Your task to perform on an android device: Open privacy settings Image 0: 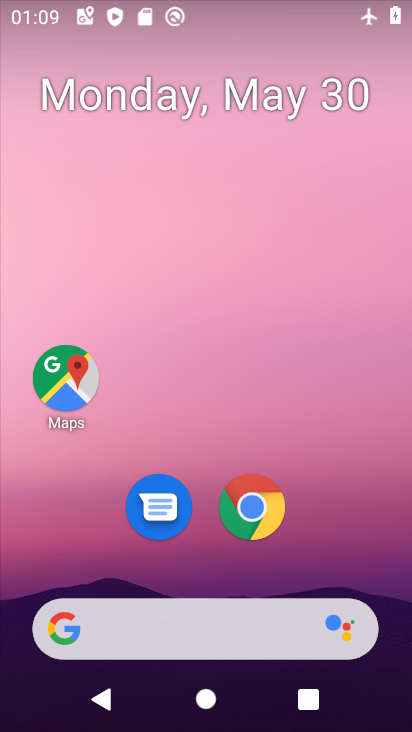
Step 0: drag from (291, 437) to (287, 108)
Your task to perform on an android device: Open privacy settings Image 1: 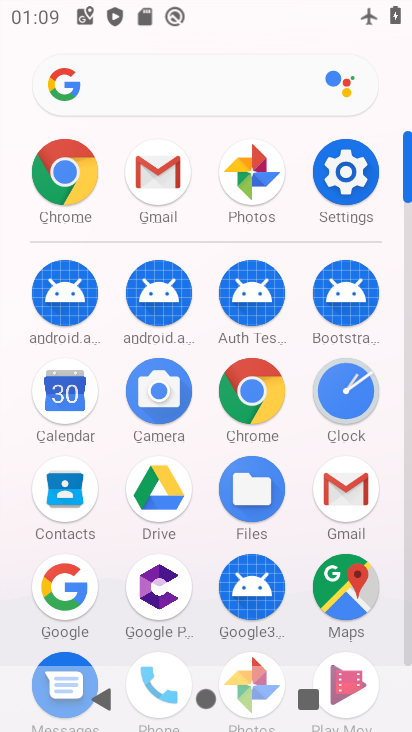
Step 1: click (334, 177)
Your task to perform on an android device: Open privacy settings Image 2: 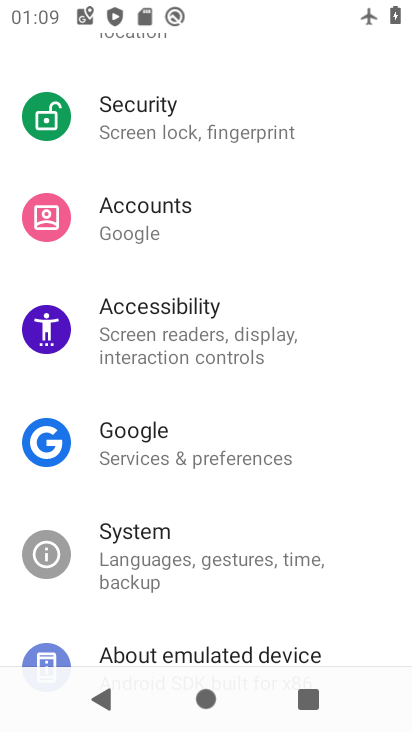
Step 2: drag from (227, 203) to (158, 591)
Your task to perform on an android device: Open privacy settings Image 3: 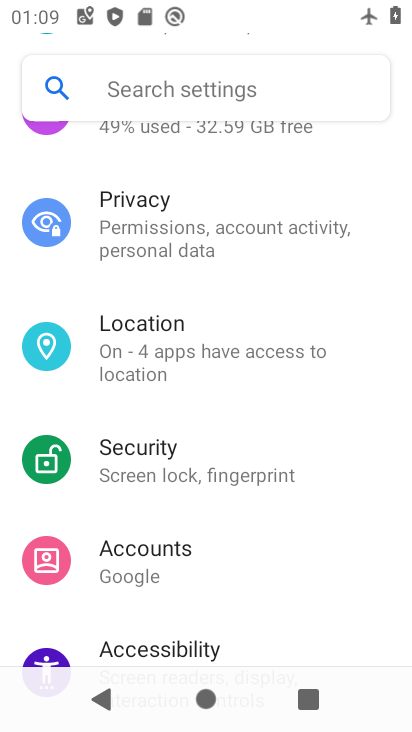
Step 3: click (172, 211)
Your task to perform on an android device: Open privacy settings Image 4: 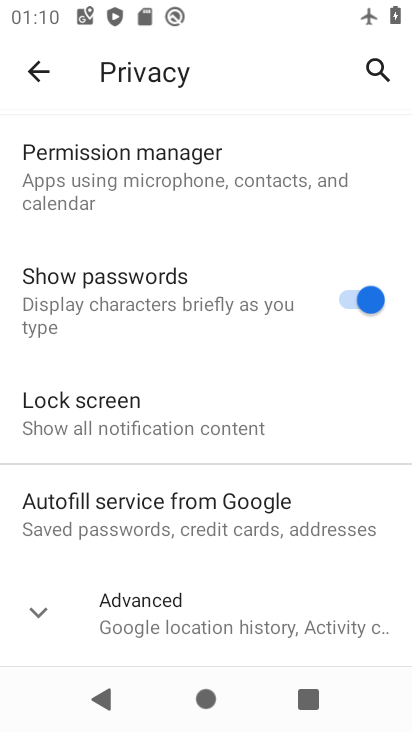
Step 4: task complete